Your task to perform on an android device: check out phone information Image 0: 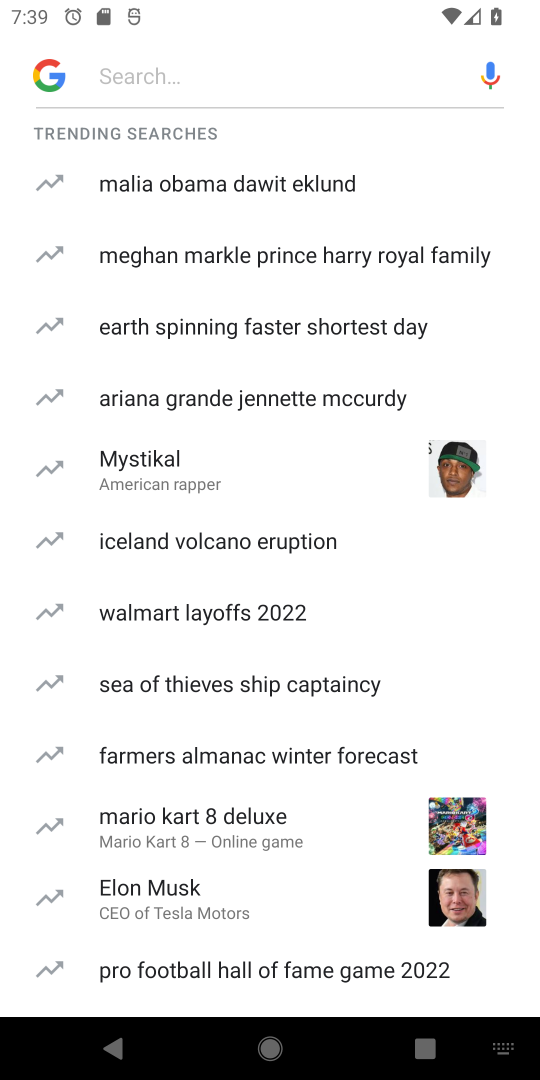
Step 0: press home button
Your task to perform on an android device: check out phone information Image 1: 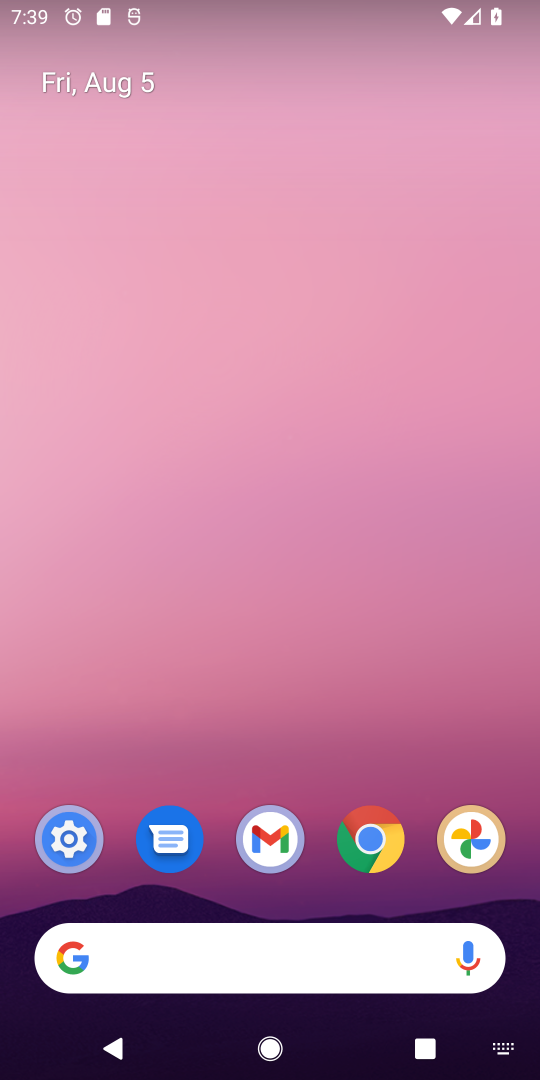
Step 1: drag from (256, 748) to (258, 174)
Your task to perform on an android device: check out phone information Image 2: 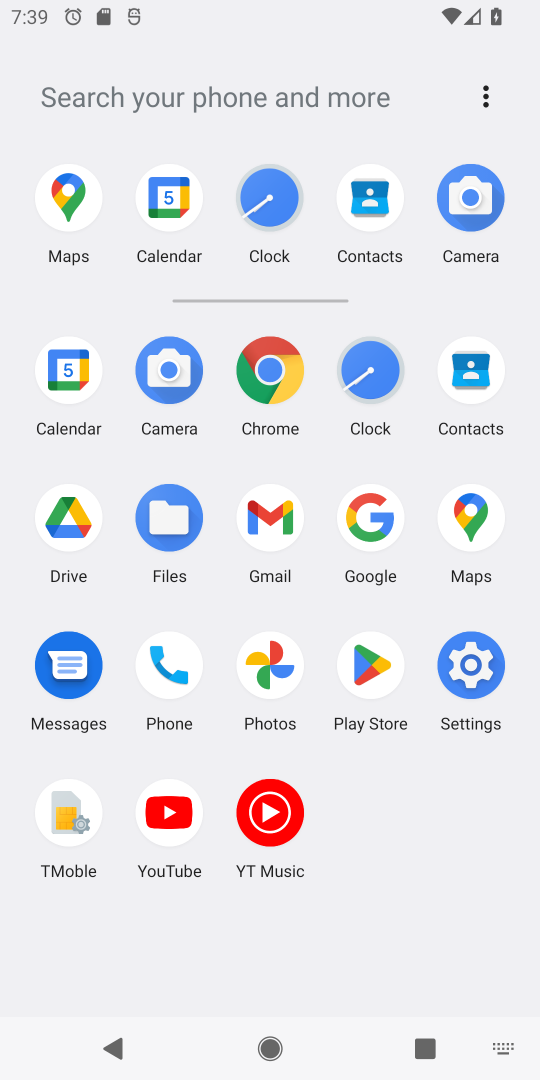
Step 2: click (450, 684)
Your task to perform on an android device: check out phone information Image 3: 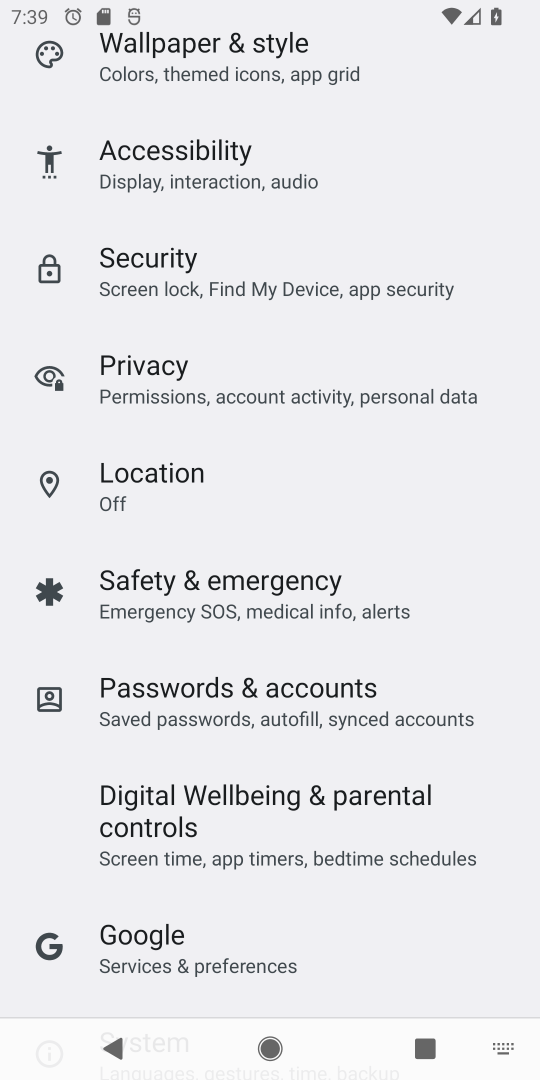
Step 3: drag from (266, 912) to (260, 374)
Your task to perform on an android device: check out phone information Image 4: 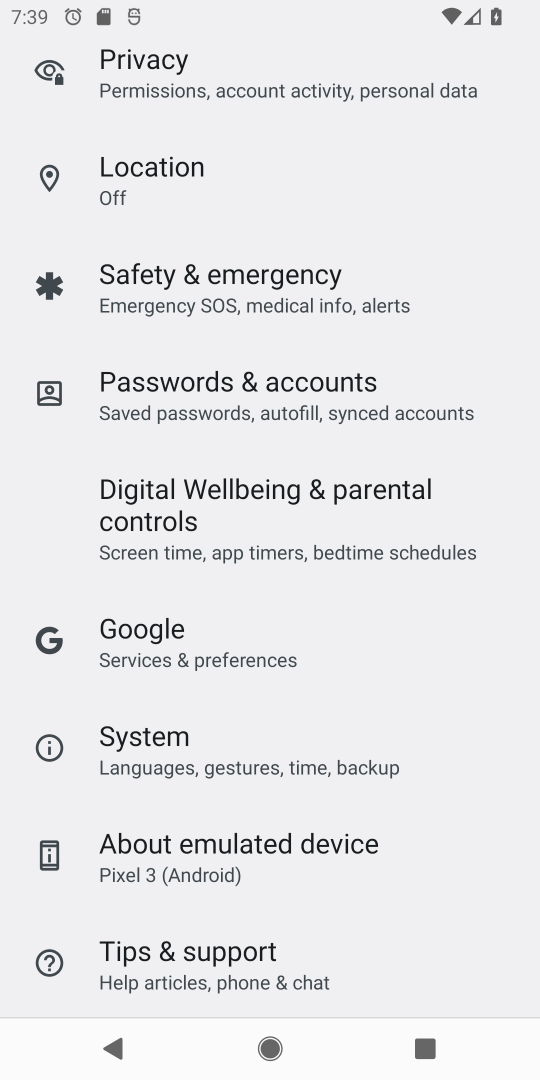
Step 4: click (249, 854)
Your task to perform on an android device: check out phone information Image 5: 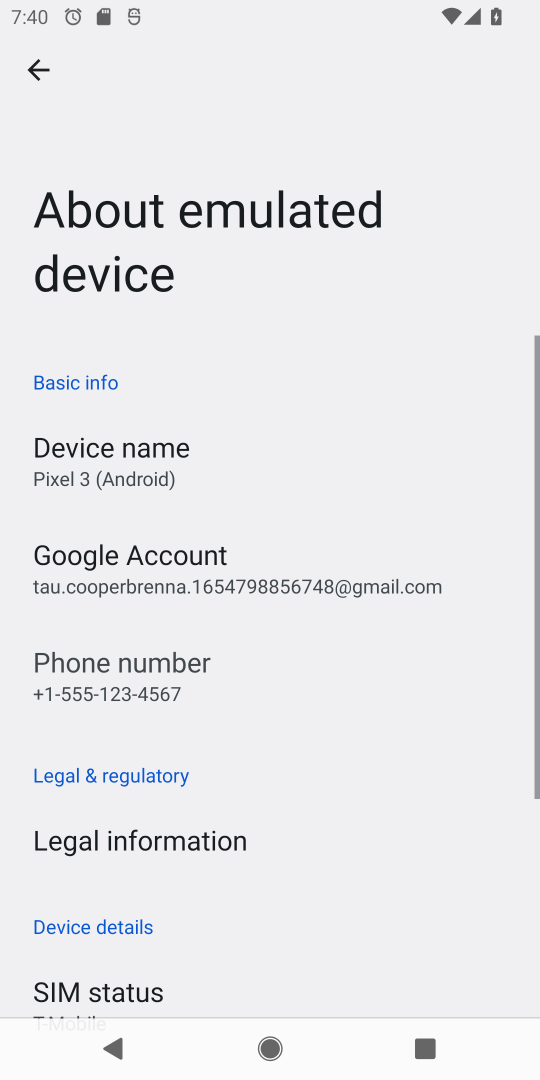
Step 5: task complete